Your task to perform on an android device: Clear the cart on costco. Image 0: 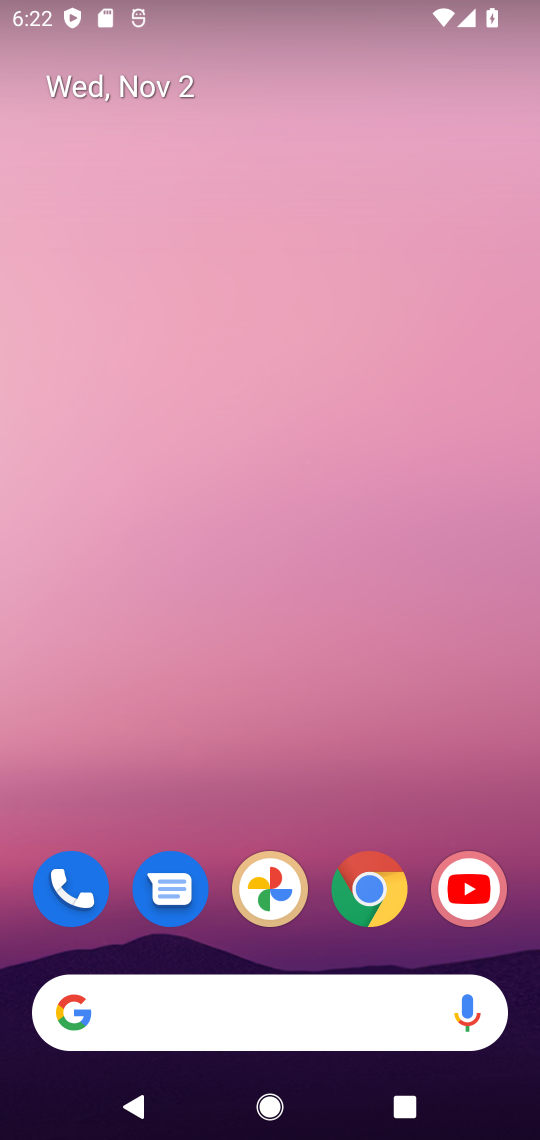
Step 0: click (381, 886)
Your task to perform on an android device: Clear the cart on costco. Image 1: 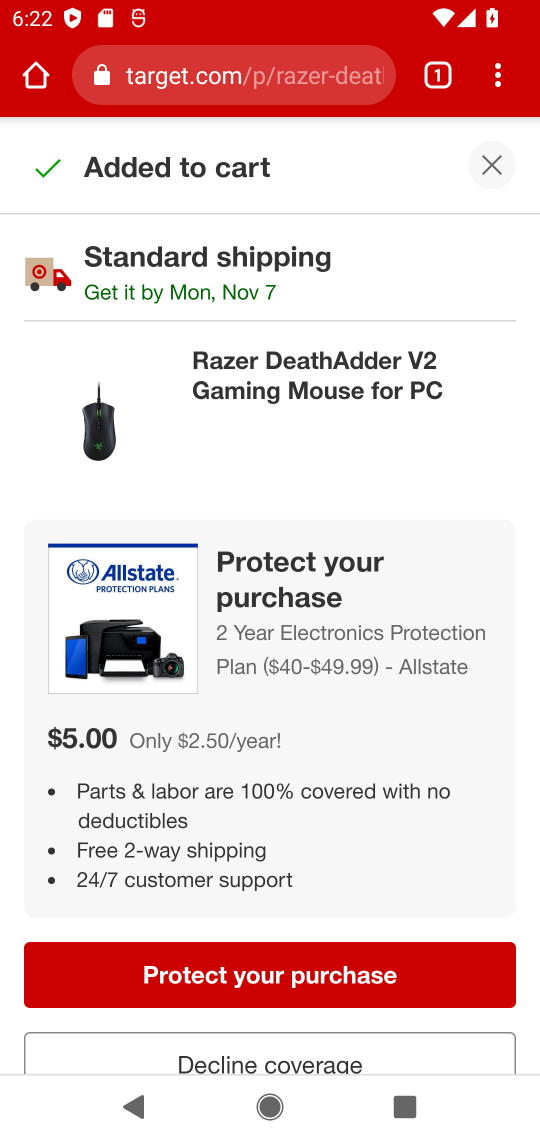
Step 1: click (329, 51)
Your task to perform on an android device: Clear the cart on costco. Image 2: 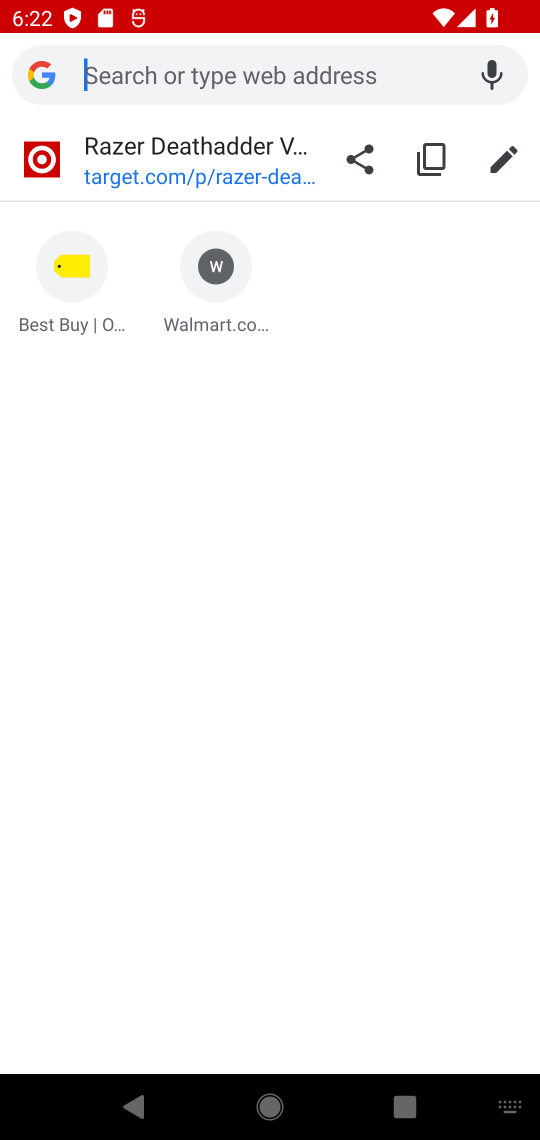
Step 2: type "costco"
Your task to perform on an android device: Clear the cart on costco. Image 3: 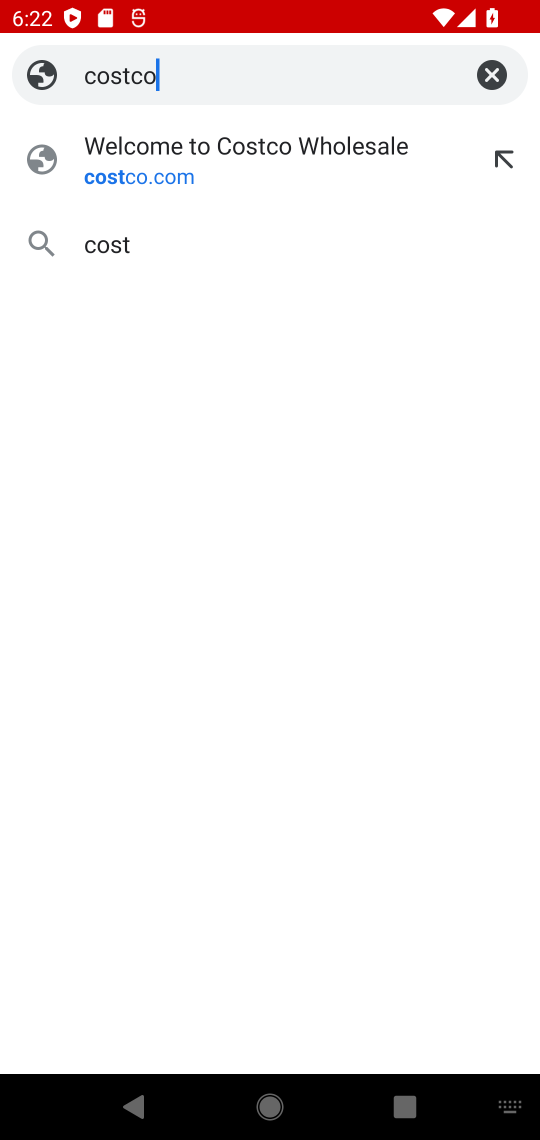
Step 3: press enter
Your task to perform on an android device: Clear the cart on costco. Image 4: 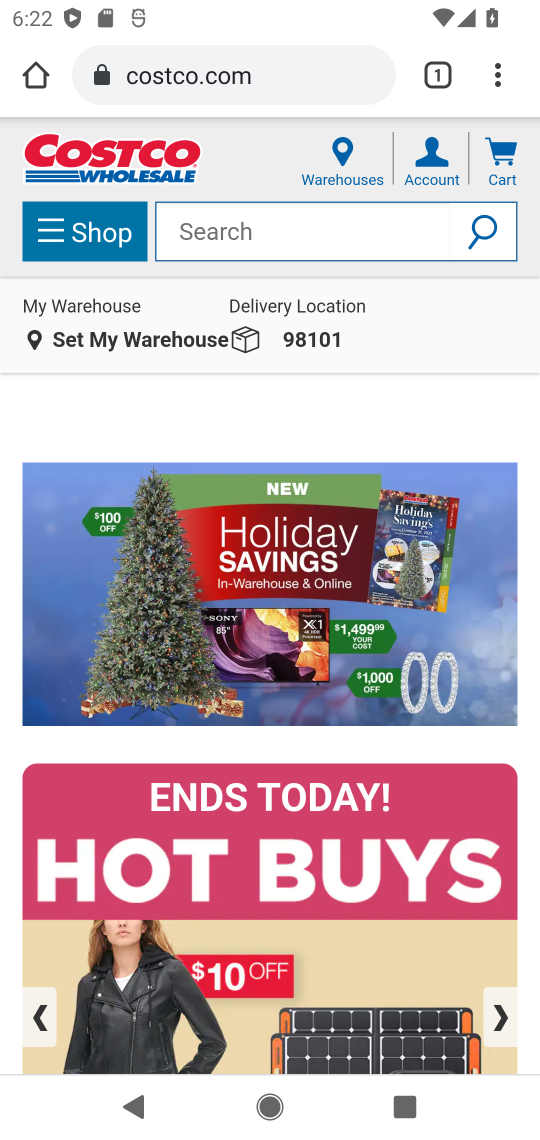
Step 4: click (505, 163)
Your task to perform on an android device: Clear the cart on costco. Image 5: 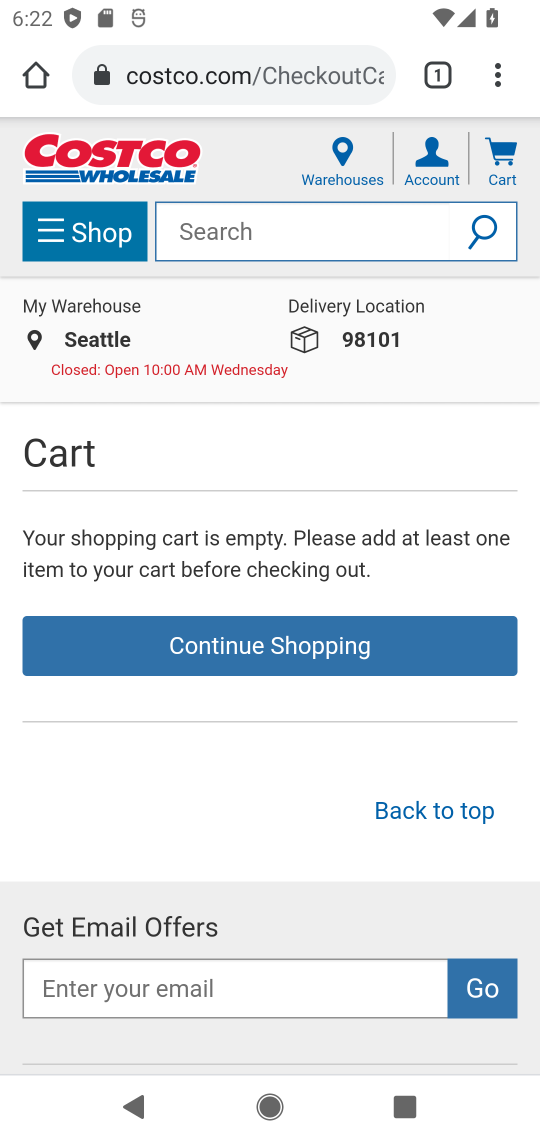
Step 5: task complete